Your task to perform on an android device: turn on improve location accuracy Image 0: 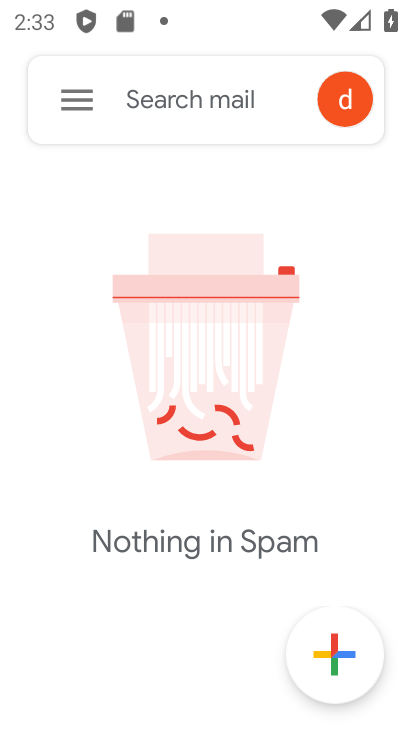
Step 0: press home button
Your task to perform on an android device: turn on improve location accuracy Image 1: 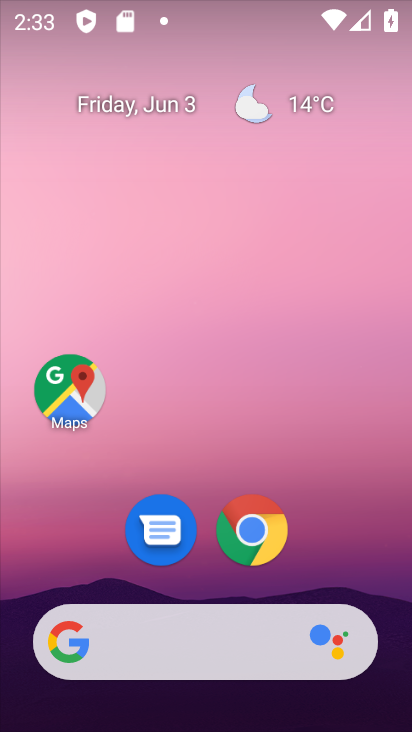
Step 1: drag from (144, 583) to (236, 168)
Your task to perform on an android device: turn on improve location accuracy Image 2: 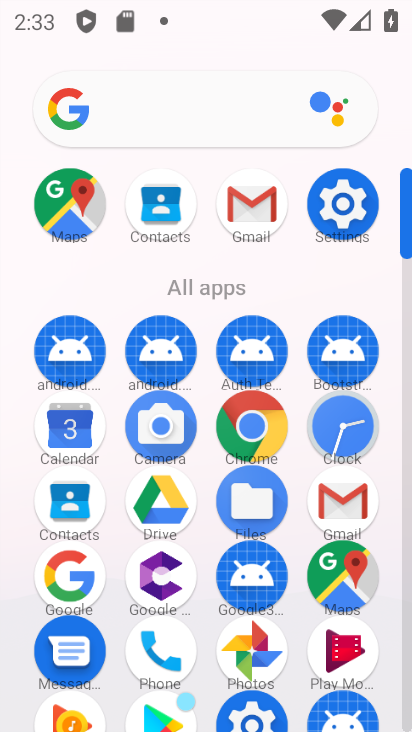
Step 2: drag from (99, 604) to (187, 345)
Your task to perform on an android device: turn on improve location accuracy Image 3: 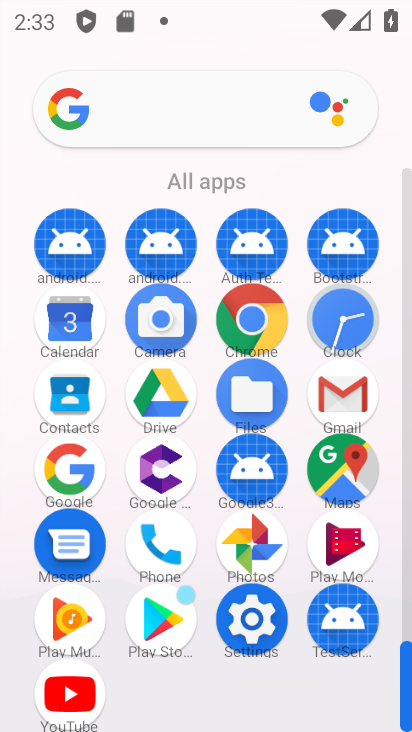
Step 3: click (248, 610)
Your task to perform on an android device: turn on improve location accuracy Image 4: 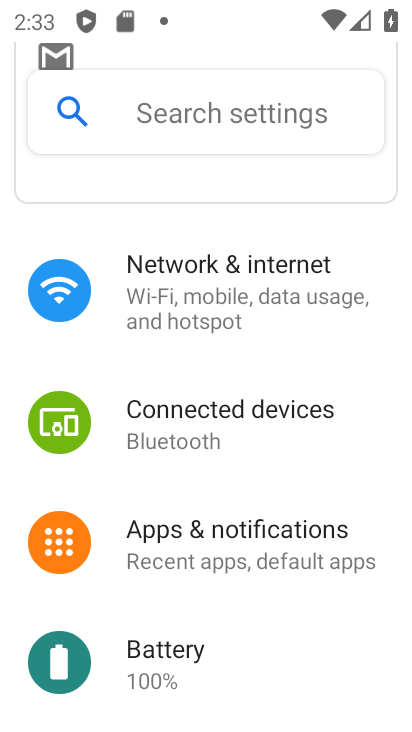
Step 4: drag from (196, 599) to (347, 335)
Your task to perform on an android device: turn on improve location accuracy Image 5: 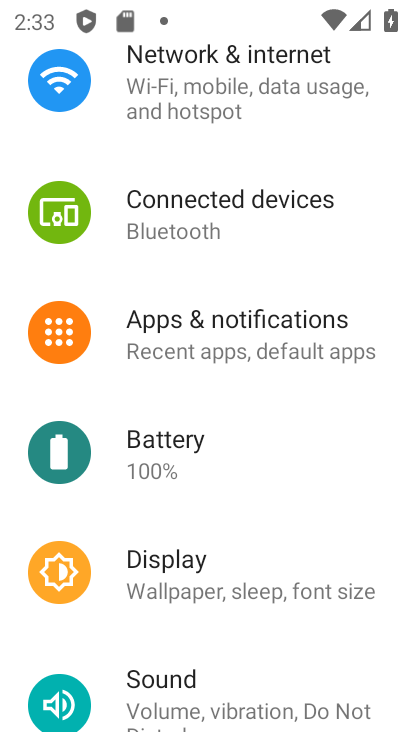
Step 5: drag from (212, 664) to (299, 414)
Your task to perform on an android device: turn on improve location accuracy Image 6: 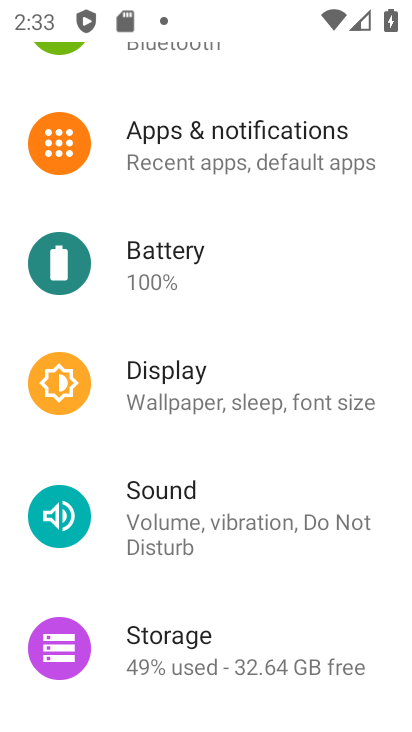
Step 6: drag from (214, 658) to (332, 365)
Your task to perform on an android device: turn on improve location accuracy Image 7: 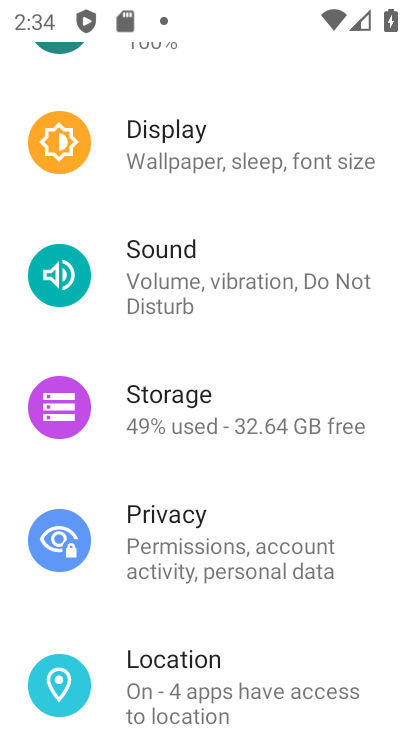
Step 7: click (195, 659)
Your task to perform on an android device: turn on improve location accuracy Image 8: 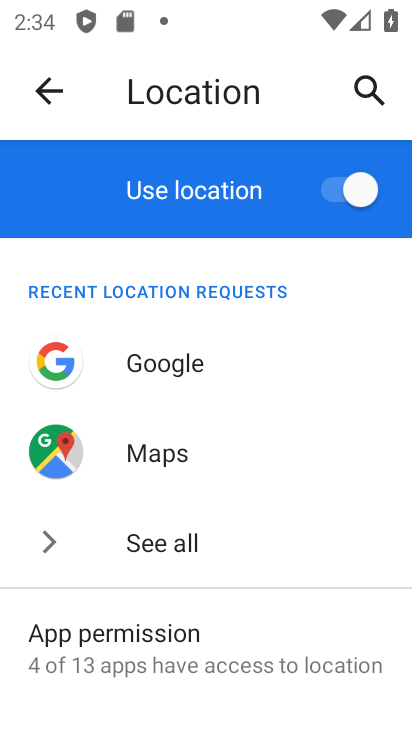
Step 8: drag from (190, 671) to (331, 399)
Your task to perform on an android device: turn on improve location accuracy Image 9: 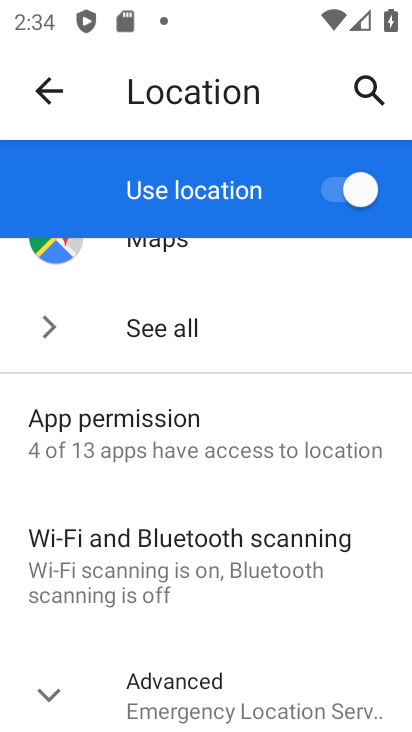
Step 9: click (203, 701)
Your task to perform on an android device: turn on improve location accuracy Image 10: 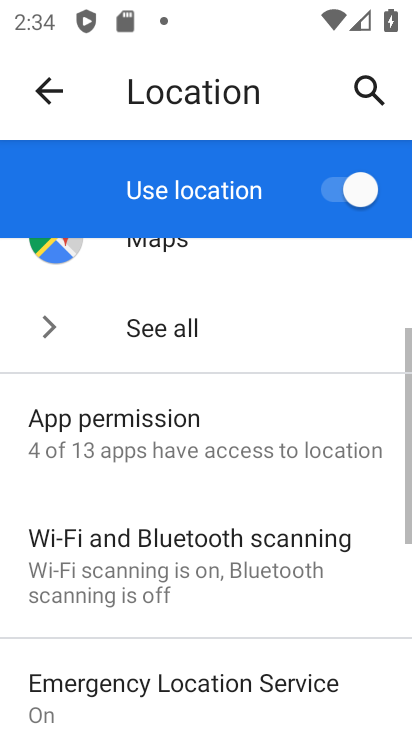
Step 10: drag from (208, 692) to (333, 342)
Your task to perform on an android device: turn on improve location accuracy Image 11: 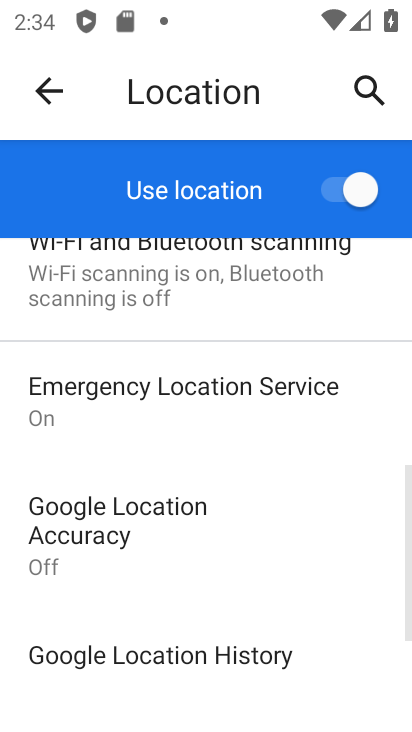
Step 11: drag from (198, 703) to (260, 480)
Your task to perform on an android device: turn on improve location accuracy Image 12: 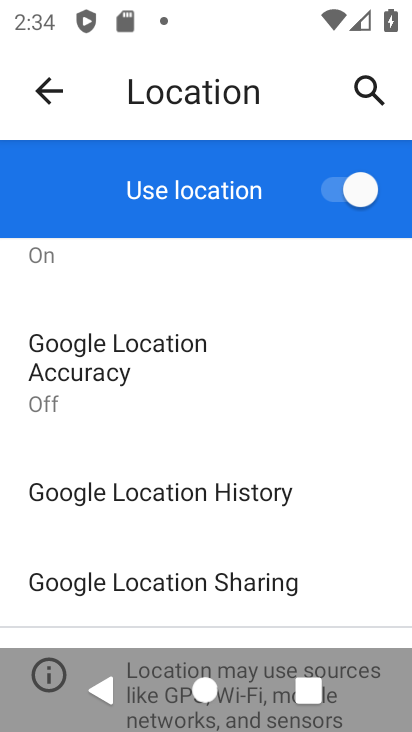
Step 12: click (231, 403)
Your task to perform on an android device: turn on improve location accuracy Image 13: 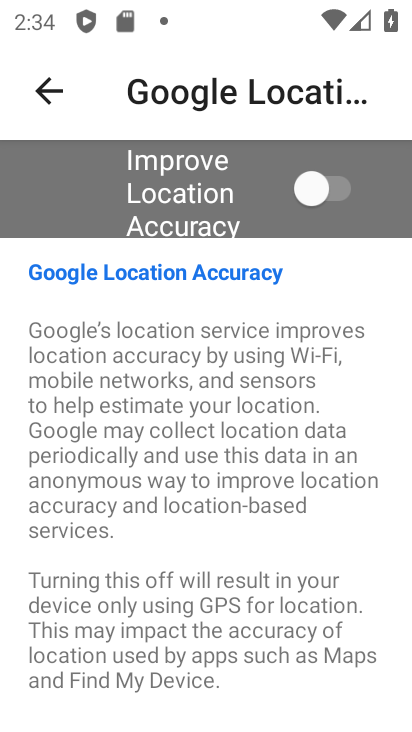
Step 13: click (333, 165)
Your task to perform on an android device: turn on improve location accuracy Image 14: 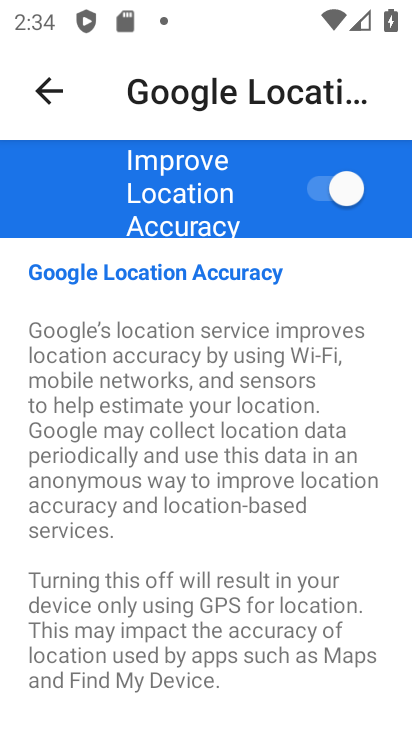
Step 14: task complete